Your task to perform on an android device: Open the phone app and click the voicemail tab. Image 0: 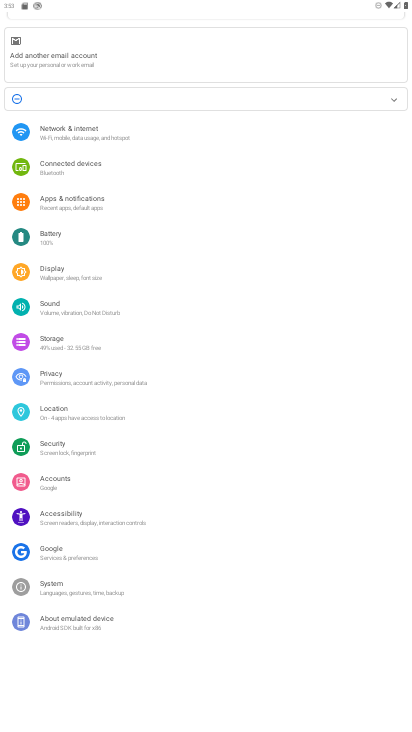
Step 0: press home button
Your task to perform on an android device: Open the phone app and click the voicemail tab. Image 1: 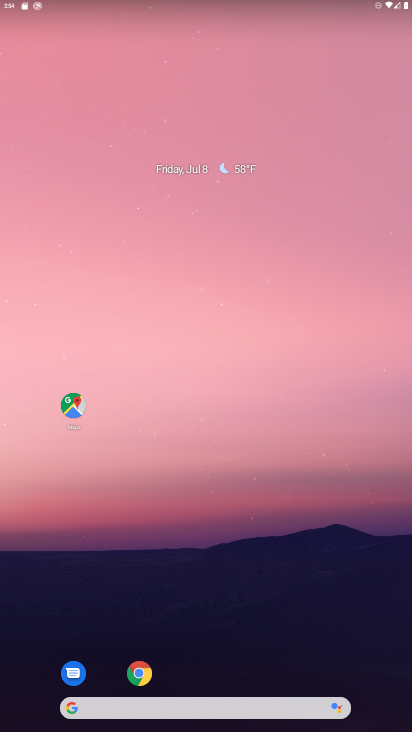
Step 1: drag from (230, 687) to (260, 387)
Your task to perform on an android device: Open the phone app and click the voicemail tab. Image 2: 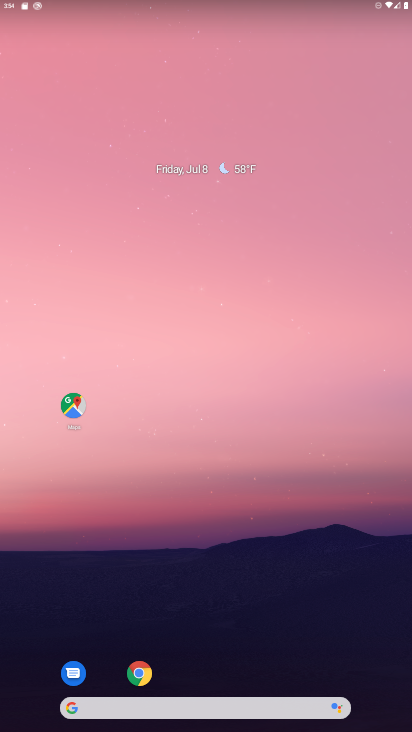
Step 2: drag from (229, 691) to (277, 350)
Your task to perform on an android device: Open the phone app and click the voicemail tab. Image 3: 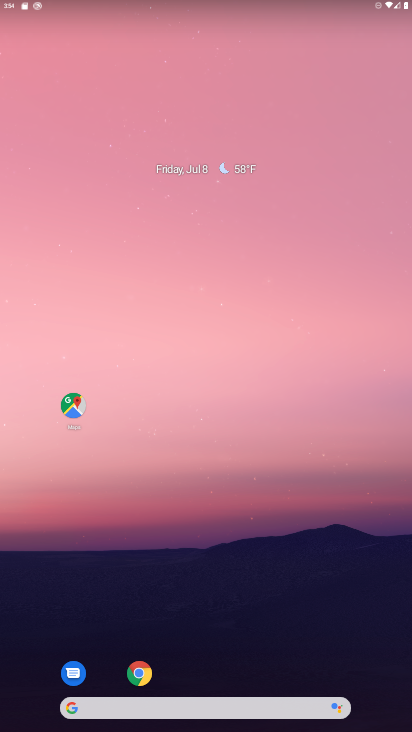
Step 3: drag from (238, 695) to (220, 318)
Your task to perform on an android device: Open the phone app and click the voicemail tab. Image 4: 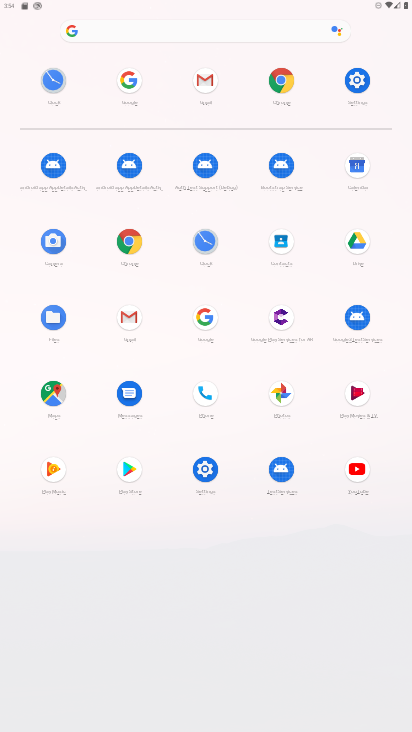
Step 4: click (205, 394)
Your task to perform on an android device: Open the phone app and click the voicemail tab. Image 5: 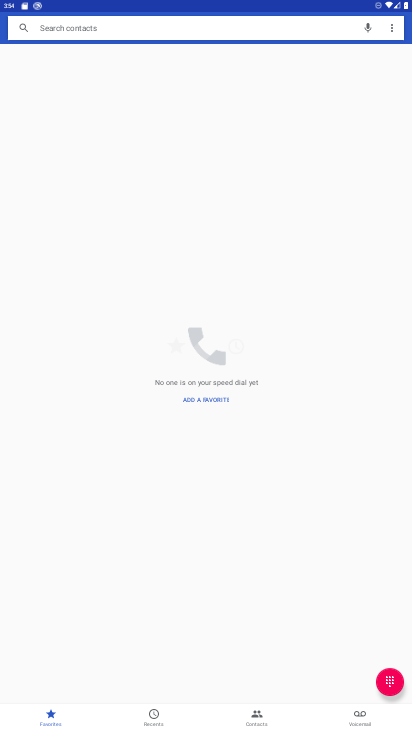
Step 5: click (364, 722)
Your task to perform on an android device: Open the phone app and click the voicemail tab. Image 6: 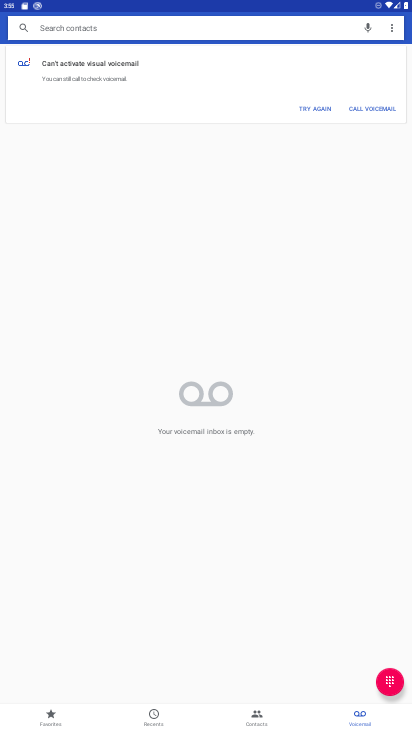
Step 6: task complete